Your task to perform on an android device: search for starred emails in the gmail app Image 0: 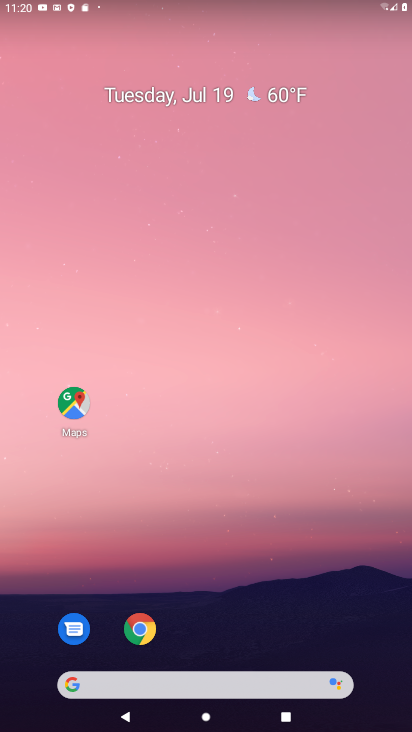
Step 0: drag from (268, 617) to (268, 117)
Your task to perform on an android device: search for starred emails in the gmail app Image 1: 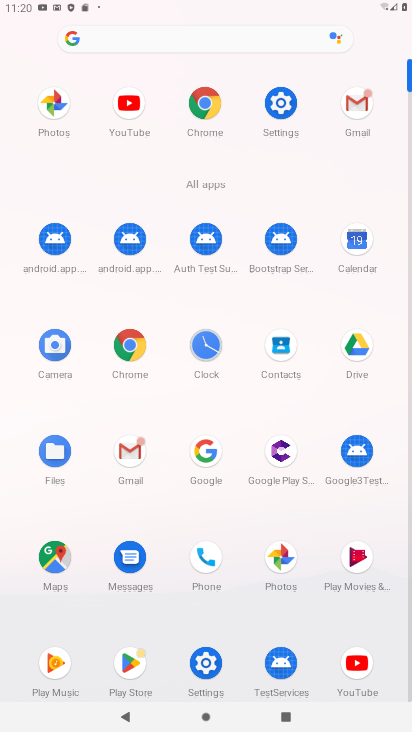
Step 1: click (360, 103)
Your task to perform on an android device: search for starred emails in the gmail app Image 2: 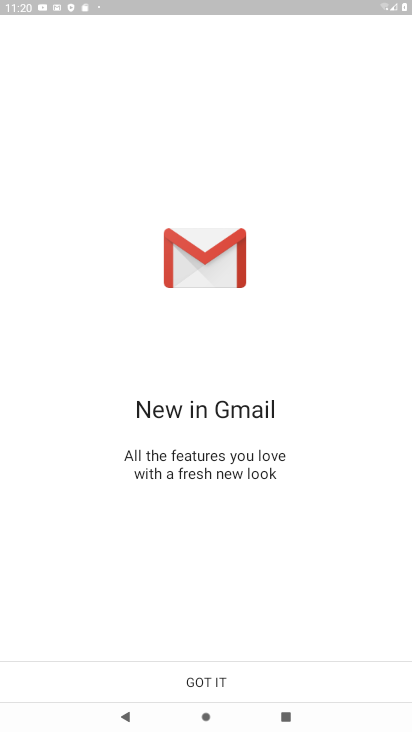
Step 2: click (232, 672)
Your task to perform on an android device: search for starred emails in the gmail app Image 3: 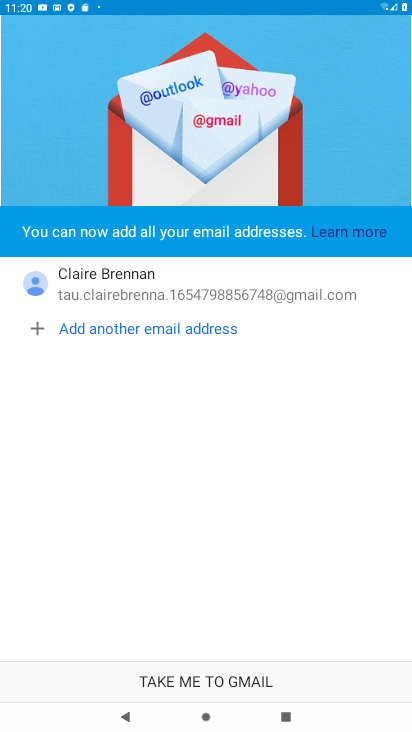
Step 3: click (232, 672)
Your task to perform on an android device: search for starred emails in the gmail app Image 4: 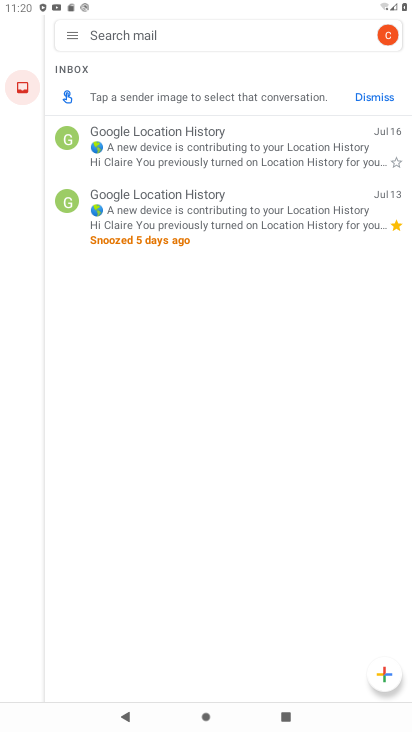
Step 4: click (69, 33)
Your task to perform on an android device: search for starred emails in the gmail app Image 5: 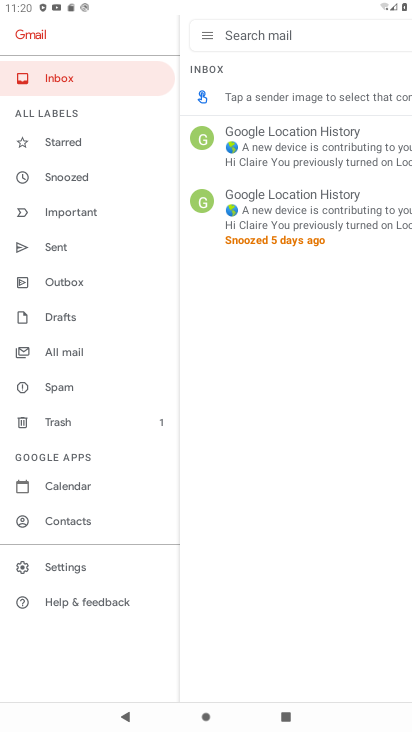
Step 5: click (38, 150)
Your task to perform on an android device: search for starred emails in the gmail app Image 6: 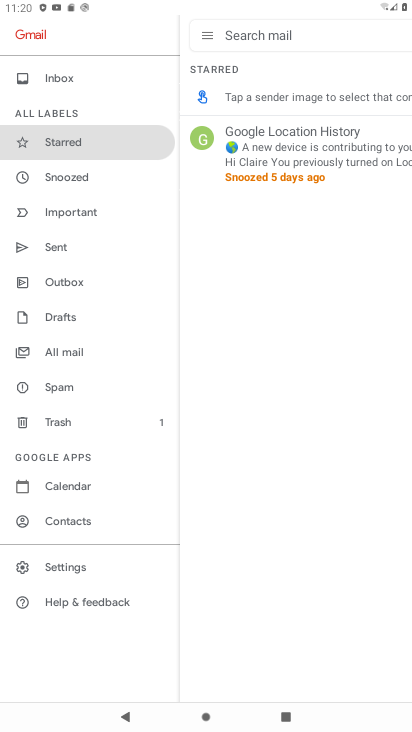
Step 6: task complete